Your task to perform on an android device: move a message to another label in the gmail app Image 0: 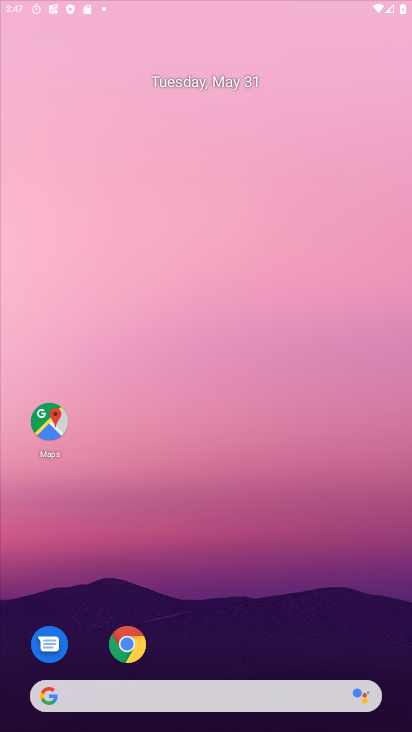
Step 0: click (296, 266)
Your task to perform on an android device: move a message to another label in the gmail app Image 1: 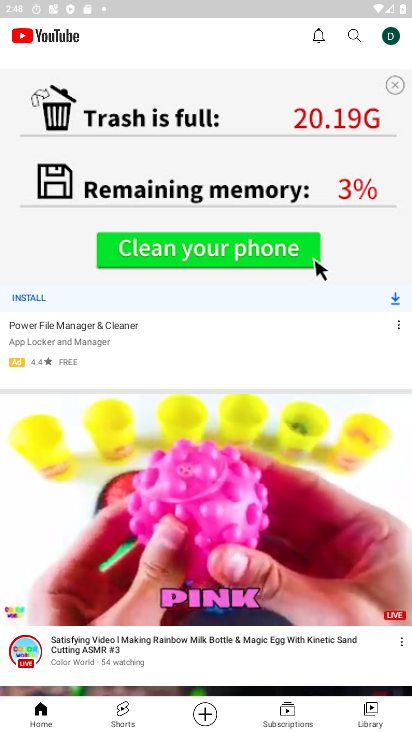
Step 1: press back button
Your task to perform on an android device: move a message to another label in the gmail app Image 2: 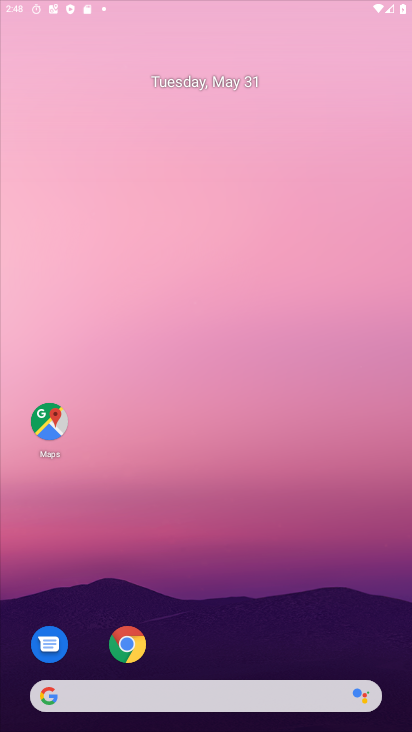
Step 2: press home button
Your task to perform on an android device: move a message to another label in the gmail app Image 3: 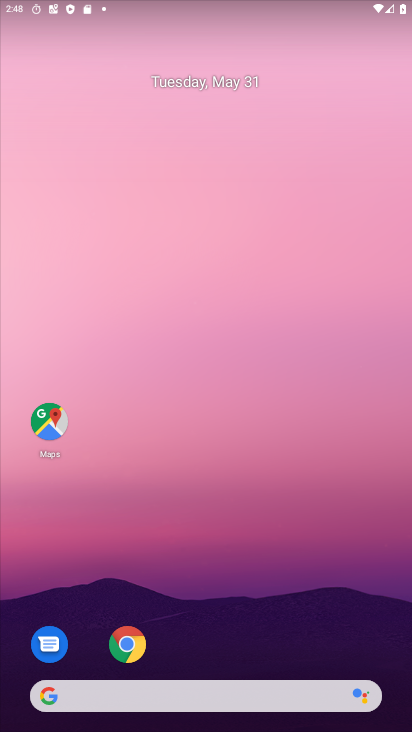
Step 3: drag from (394, 661) to (389, 10)
Your task to perform on an android device: move a message to another label in the gmail app Image 4: 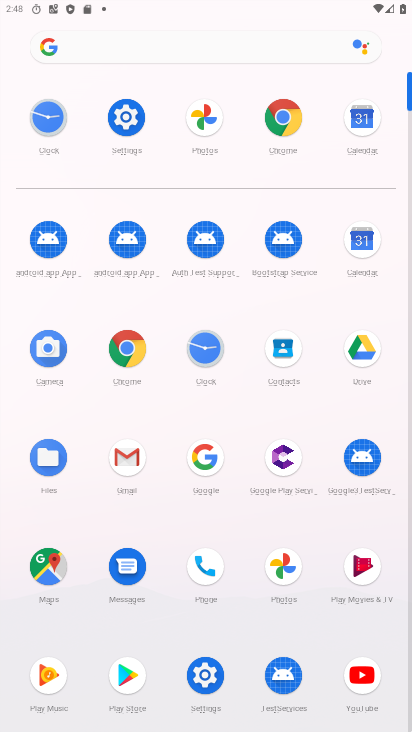
Step 4: click (118, 461)
Your task to perform on an android device: move a message to another label in the gmail app Image 5: 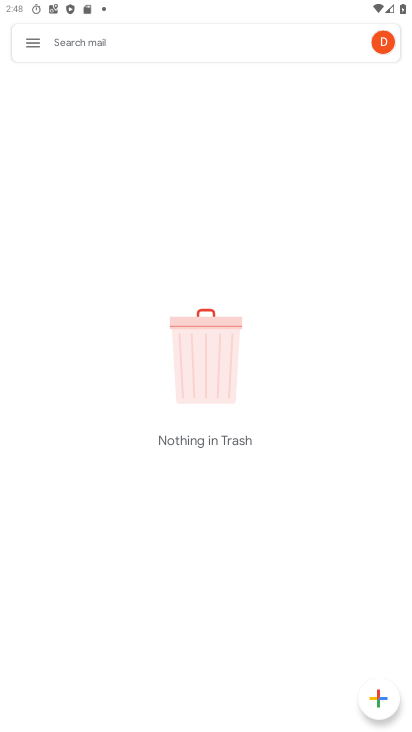
Step 5: click (22, 45)
Your task to perform on an android device: move a message to another label in the gmail app Image 6: 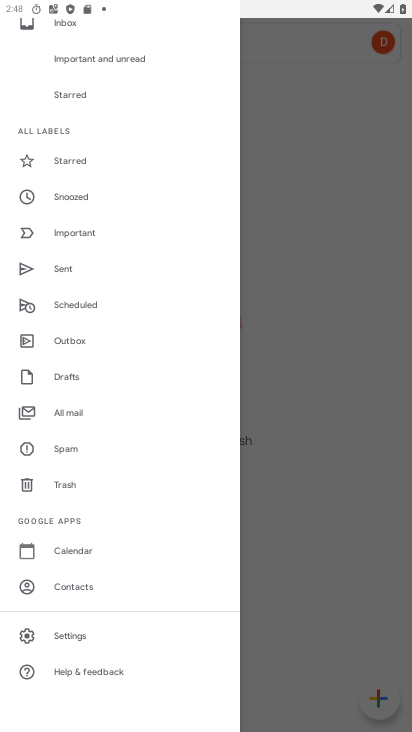
Step 6: click (57, 14)
Your task to perform on an android device: move a message to another label in the gmail app Image 7: 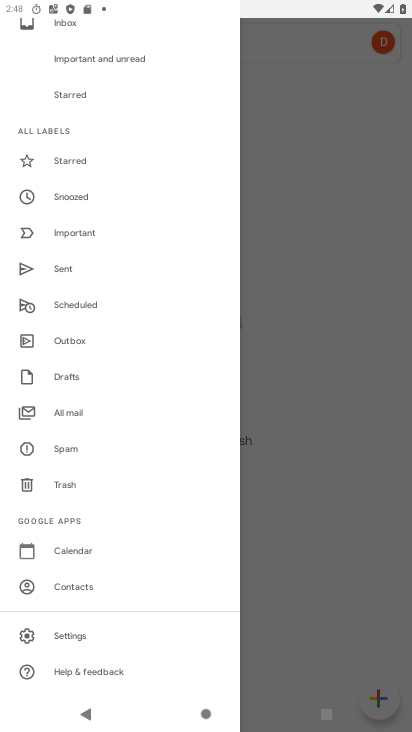
Step 7: click (58, 25)
Your task to perform on an android device: move a message to another label in the gmail app Image 8: 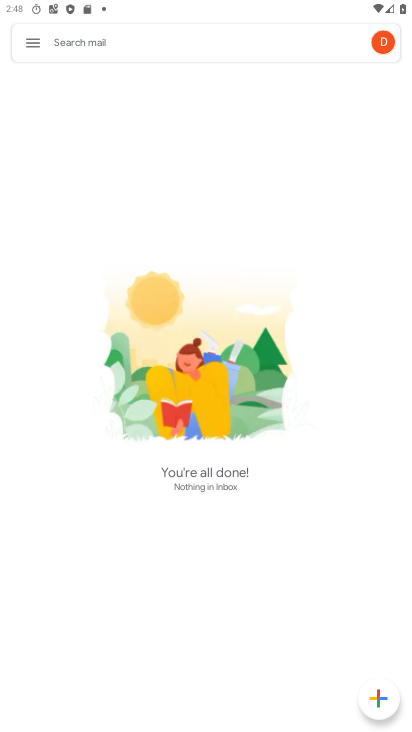
Step 8: click (31, 41)
Your task to perform on an android device: move a message to another label in the gmail app Image 9: 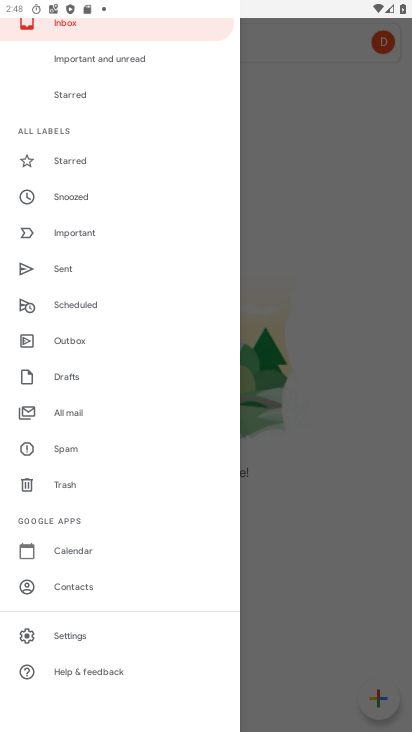
Step 9: click (79, 25)
Your task to perform on an android device: move a message to another label in the gmail app Image 10: 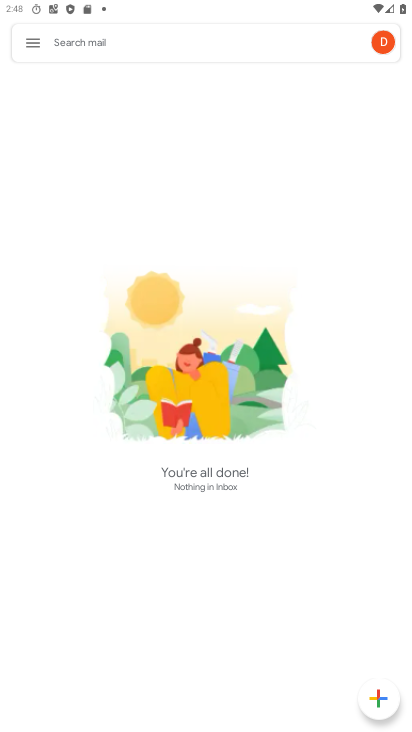
Step 10: task complete